Your task to perform on an android device: turn off location history Image 0: 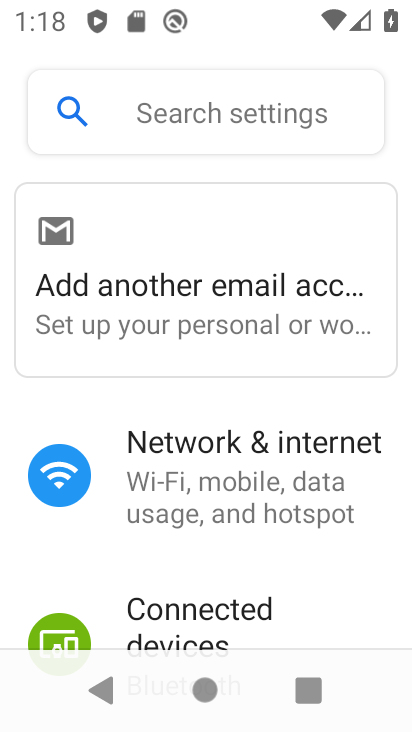
Step 0: press home button
Your task to perform on an android device: turn off location history Image 1: 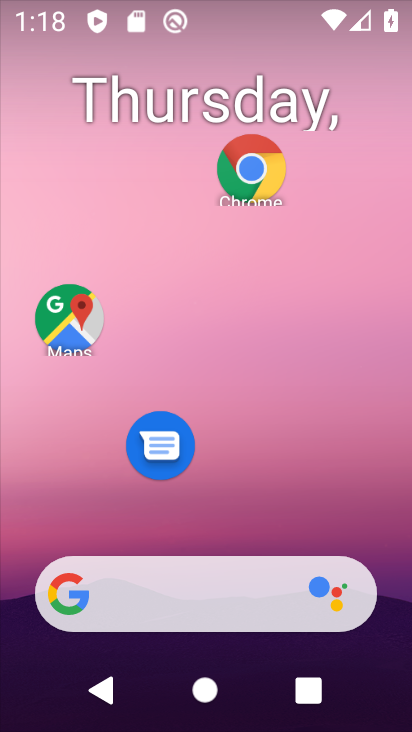
Step 1: drag from (244, 647) to (337, 164)
Your task to perform on an android device: turn off location history Image 2: 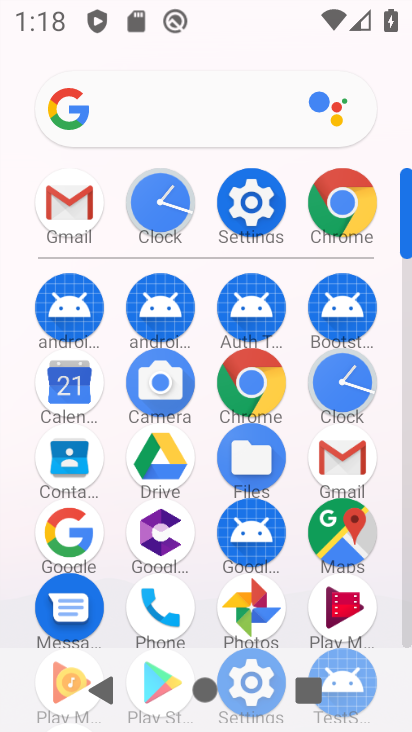
Step 2: click (253, 205)
Your task to perform on an android device: turn off location history Image 3: 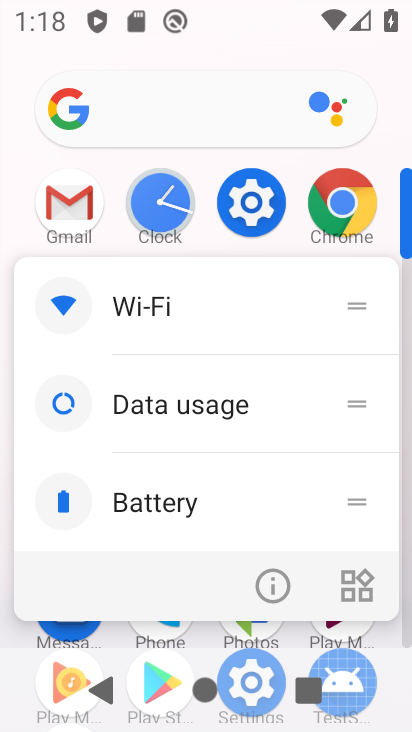
Step 3: click (255, 206)
Your task to perform on an android device: turn off location history Image 4: 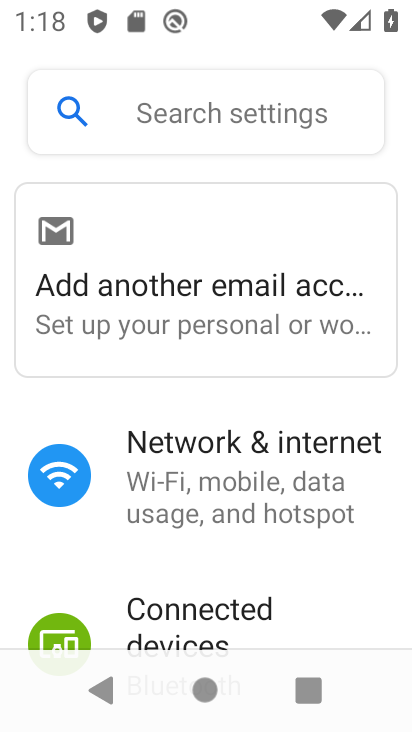
Step 4: click (237, 124)
Your task to perform on an android device: turn off location history Image 5: 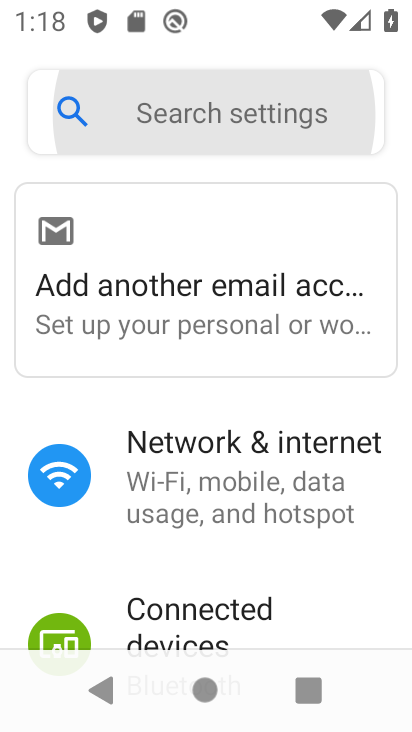
Step 5: click (231, 113)
Your task to perform on an android device: turn off location history Image 6: 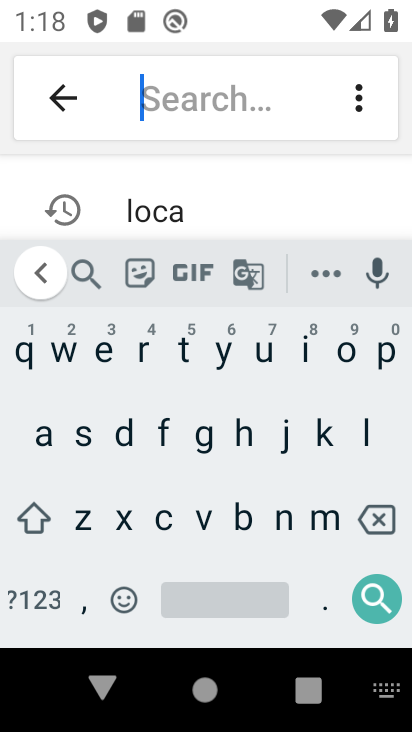
Step 6: click (367, 438)
Your task to perform on an android device: turn off location history Image 7: 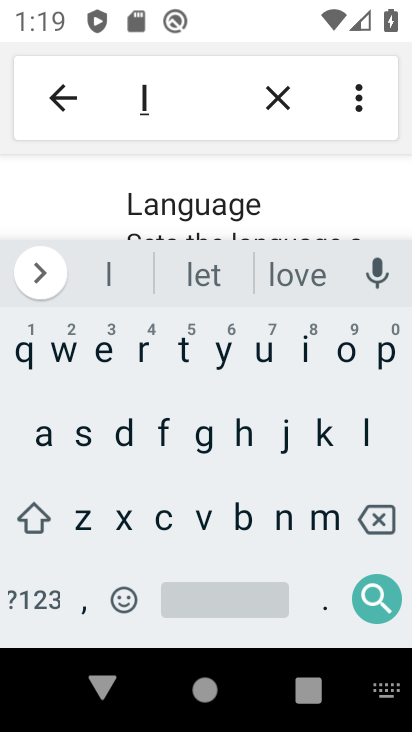
Step 7: click (340, 354)
Your task to perform on an android device: turn off location history Image 8: 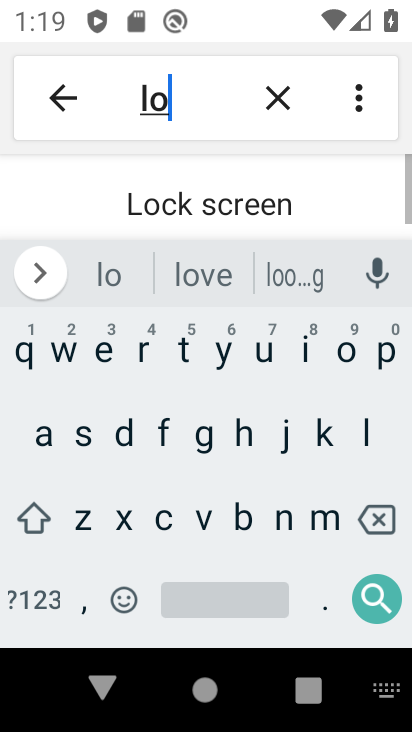
Step 8: click (162, 518)
Your task to perform on an android device: turn off location history Image 9: 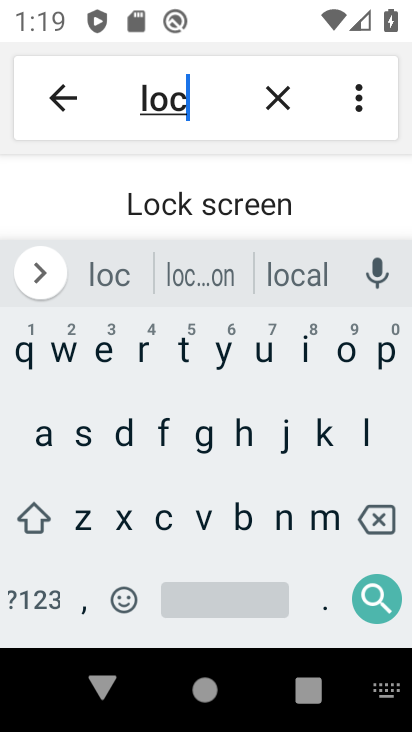
Step 9: click (40, 442)
Your task to perform on an android device: turn off location history Image 10: 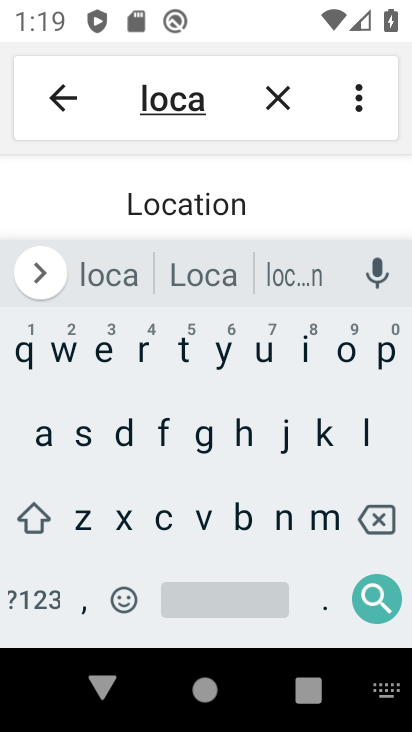
Step 10: click (179, 211)
Your task to perform on an android device: turn off location history Image 11: 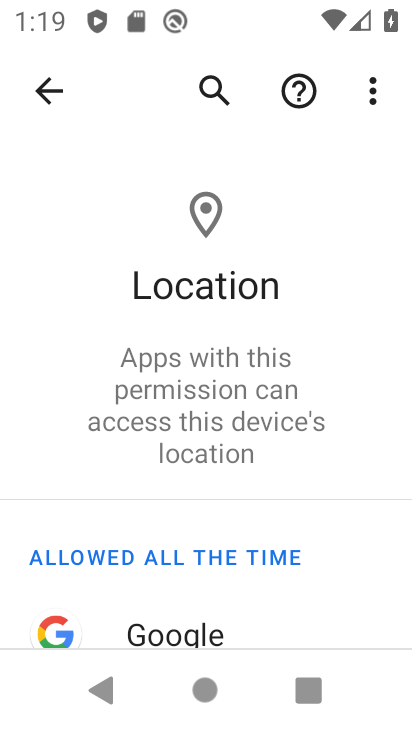
Step 11: drag from (210, 426) to (275, 216)
Your task to perform on an android device: turn off location history Image 12: 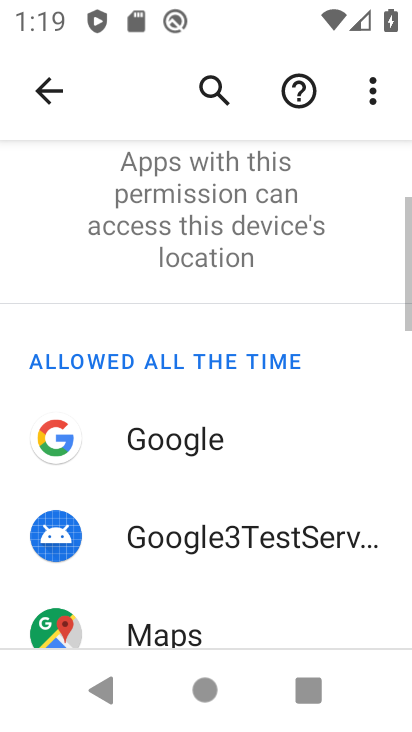
Step 12: drag from (200, 522) to (241, 352)
Your task to perform on an android device: turn off location history Image 13: 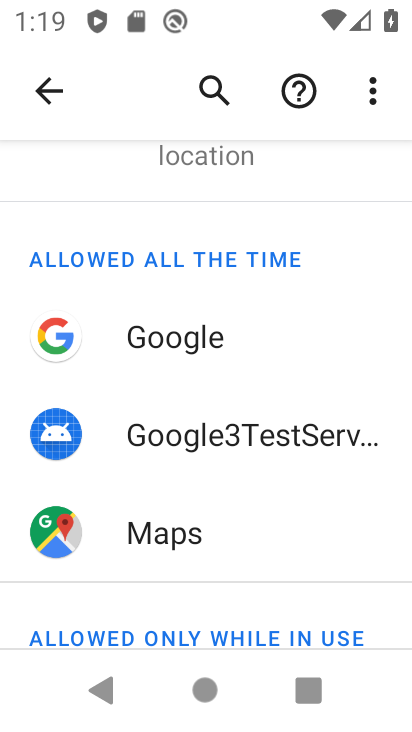
Step 13: drag from (228, 533) to (296, 293)
Your task to perform on an android device: turn off location history Image 14: 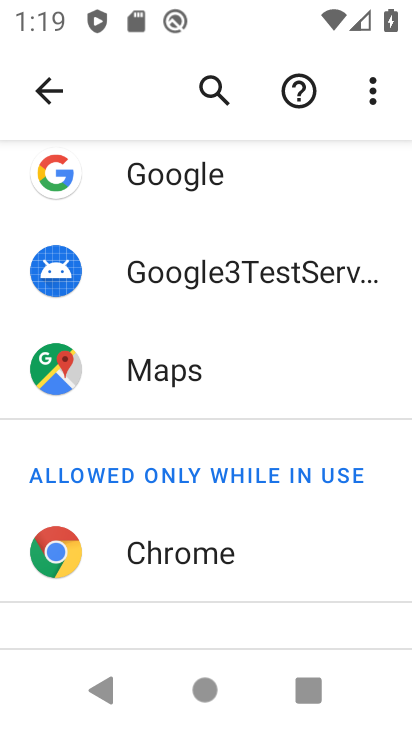
Step 14: drag from (270, 392) to (327, 83)
Your task to perform on an android device: turn off location history Image 15: 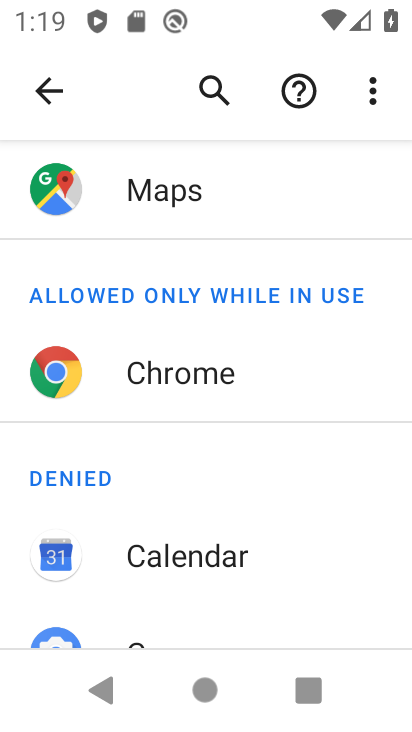
Step 15: click (55, 77)
Your task to perform on an android device: turn off location history Image 16: 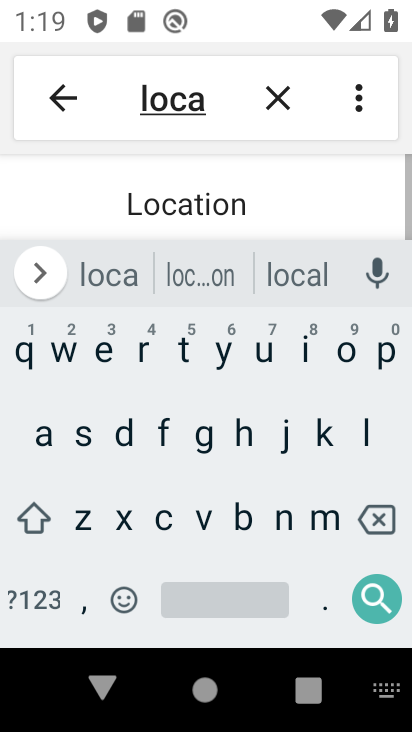
Step 16: drag from (289, 207) to (270, 128)
Your task to perform on an android device: turn off location history Image 17: 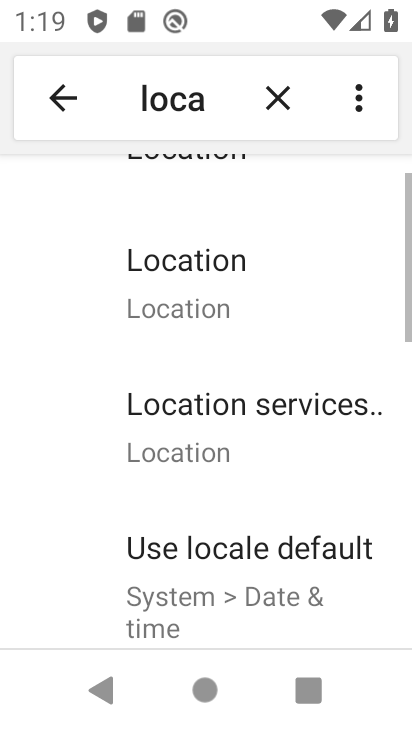
Step 17: click (212, 299)
Your task to perform on an android device: turn off location history Image 18: 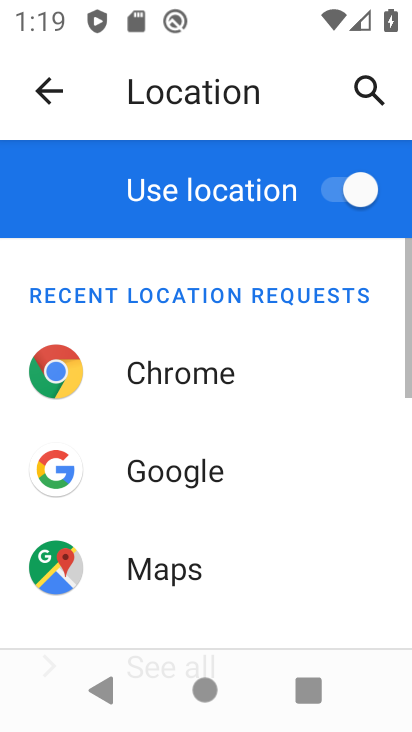
Step 18: drag from (183, 556) to (305, 217)
Your task to perform on an android device: turn off location history Image 19: 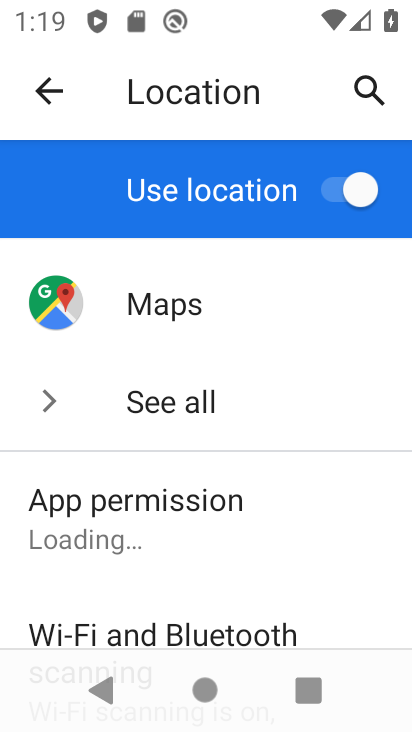
Step 19: drag from (228, 527) to (301, 254)
Your task to perform on an android device: turn off location history Image 20: 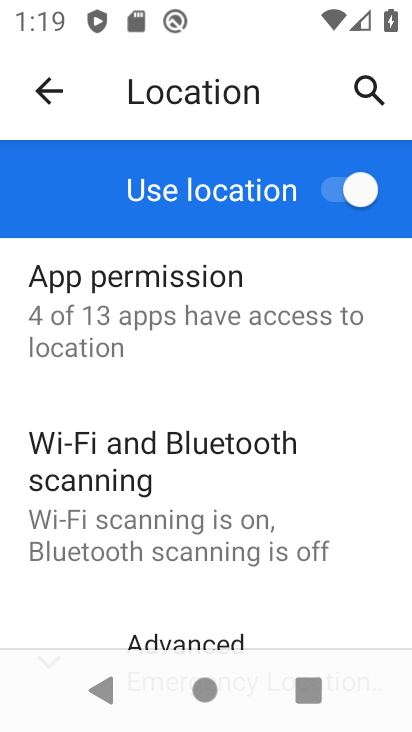
Step 20: click (150, 507)
Your task to perform on an android device: turn off location history Image 21: 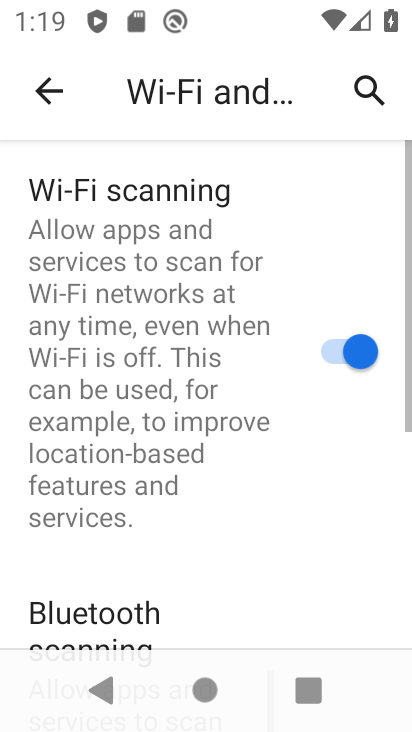
Step 21: click (48, 104)
Your task to perform on an android device: turn off location history Image 22: 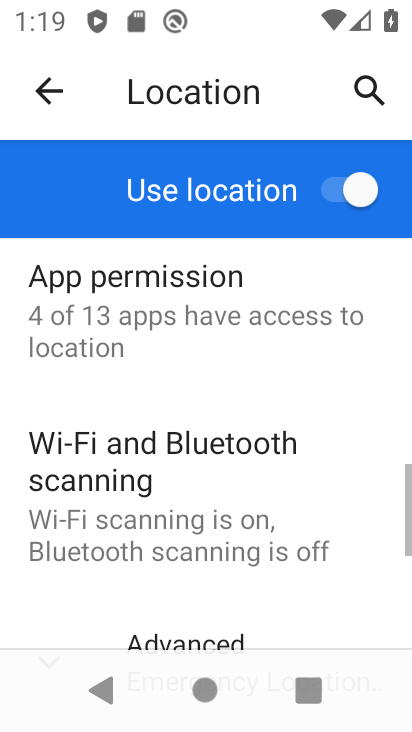
Step 22: drag from (208, 499) to (292, 239)
Your task to perform on an android device: turn off location history Image 23: 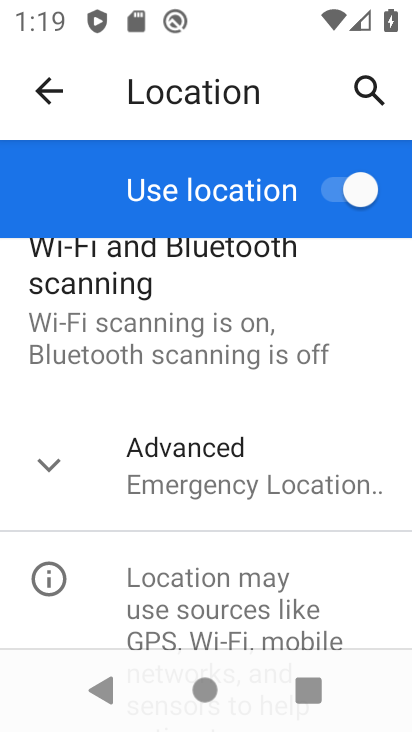
Step 23: click (158, 480)
Your task to perform on an android device: turn off location history Image 24: 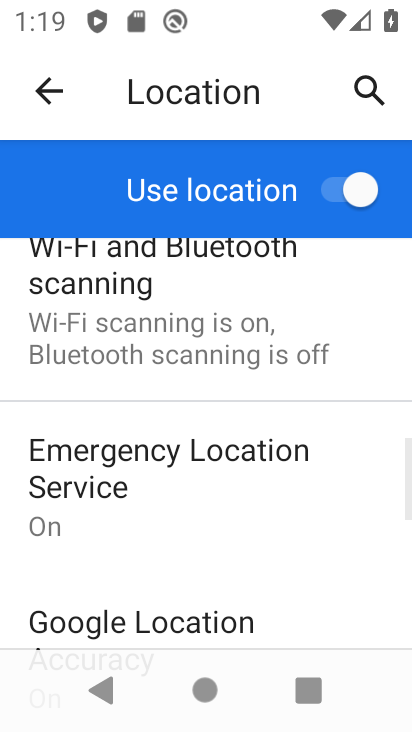
Step 24: drag from (155, 590) to (244, 322)
Your task to perform on an android device: turn off location history Image 25: 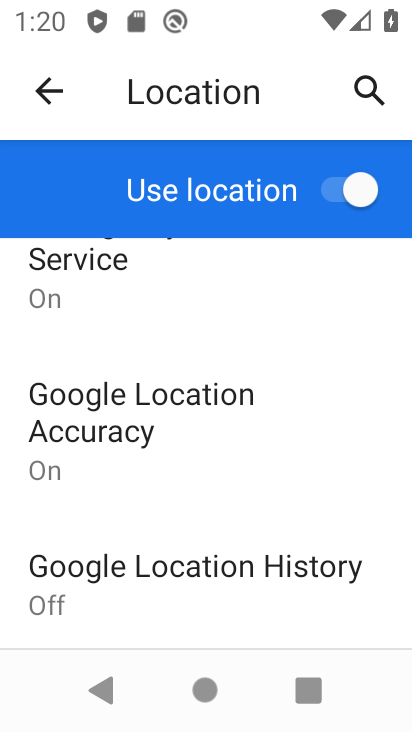
Step 25: drag from (161, 559) to (208, 432)
Your task to perform on an android device: turn off location history Image 26: 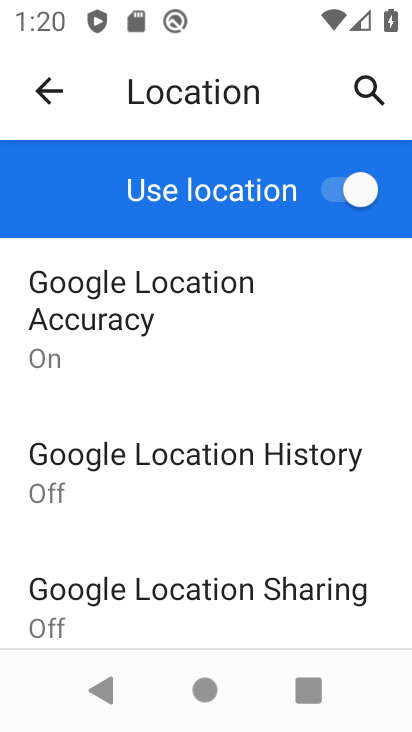
Step 26: click (168, 470)
Your task to perform on an android device: turn off location history Image 27: 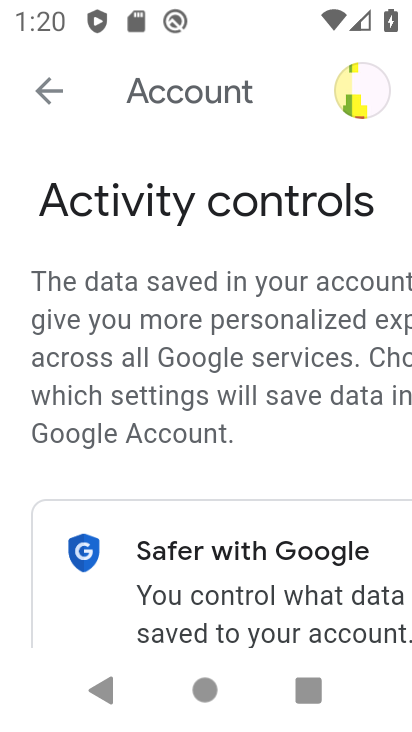
Step 27: drag from (225, 490) to (296, 201)
Your task to perform on an android device: turn off location history Image 28: 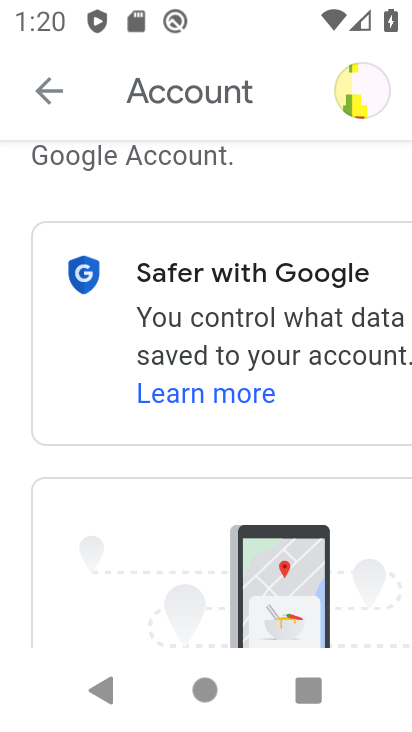
Step 28: drag from (187, 504) to (229, 319)
Your task to perform on an android device: turn off location history Image 29: 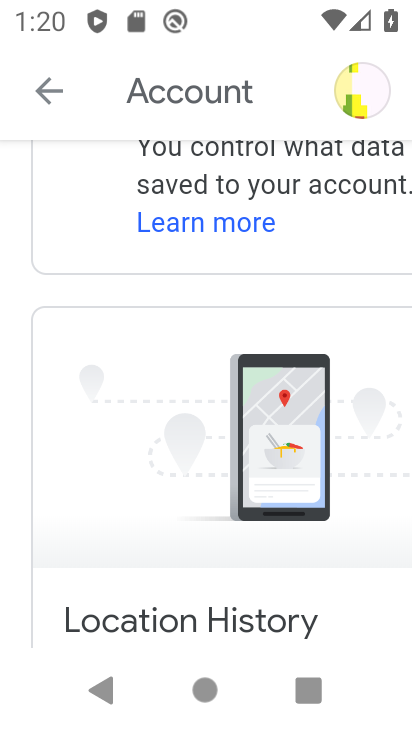
Step 29: drag from (142, 514) to (188, 354)
Your task to perform on an android device: turn off location history Image 30: 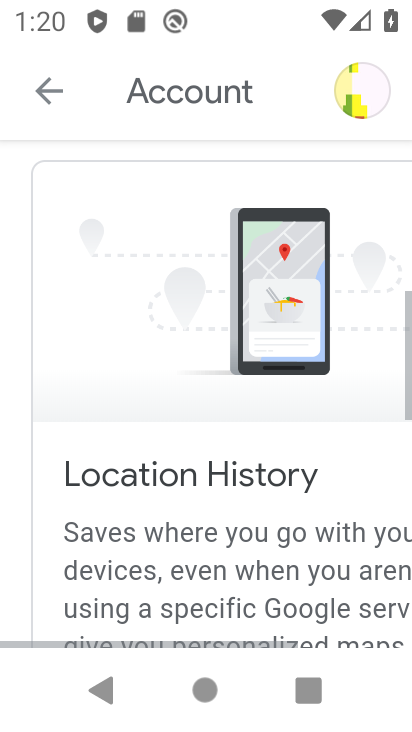
Step 30: drag from (151, 512) to (175, 326)
Your task to perform on an android device: turn off location history Image 31: 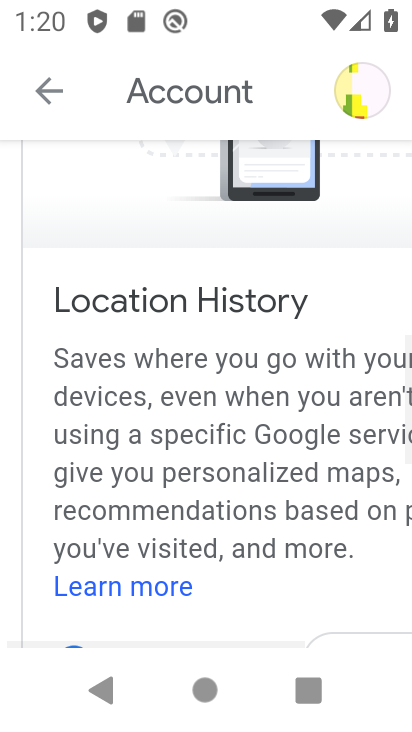
Step 31: drag from (207, 518) to (191, 285)
Your task to perform on an android device: turn off location history Image 32: 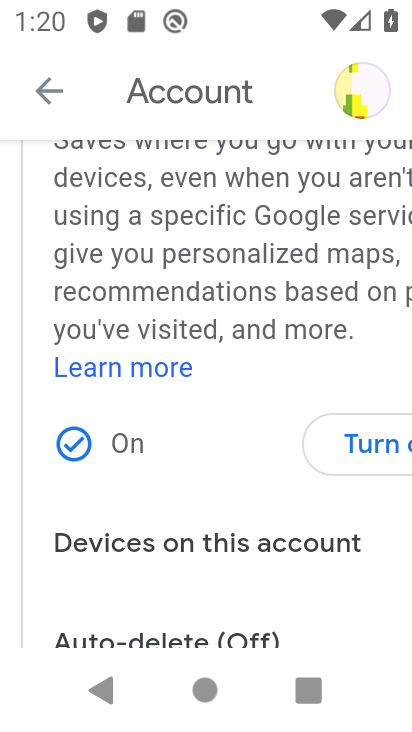
Step 32: click (353, 460)
Your task to perform on an android device: turn off location history Image 33: 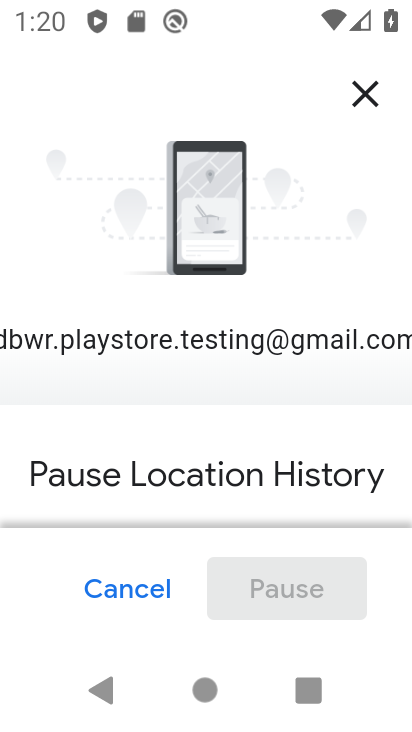
Step 33: task complete